Your task to perform on an android device: turn off javascript in the chrome app Image 0: 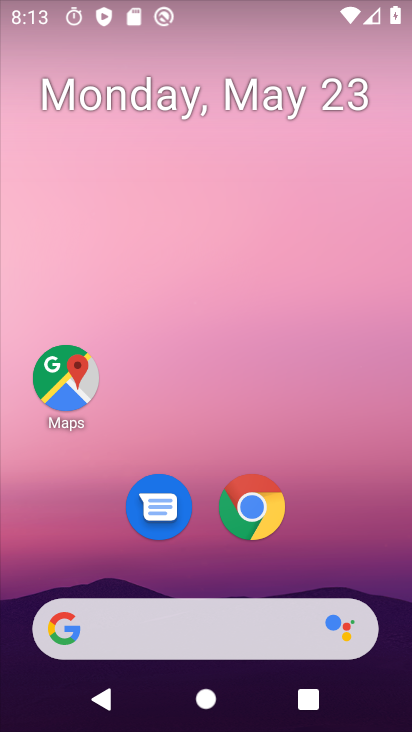
Step 0: drag from (313, 507) to (285, 5)
Your task to perform on an android device: turn off javascript in the chrome app Image 1: 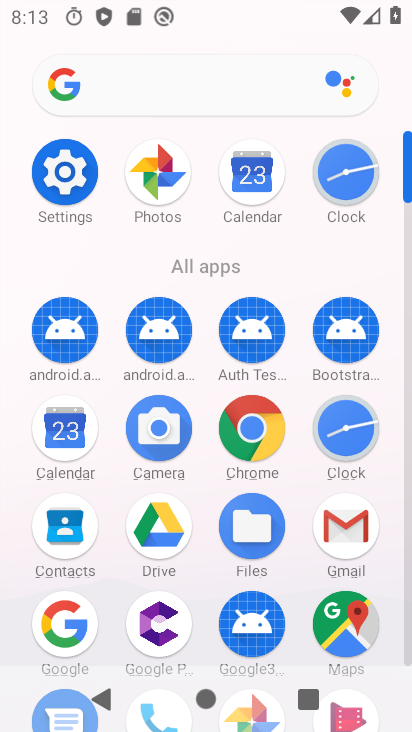
Step 1: click (252, 446)
Your task to perform on an android device: turn off javascript in the chrome app Image 2: 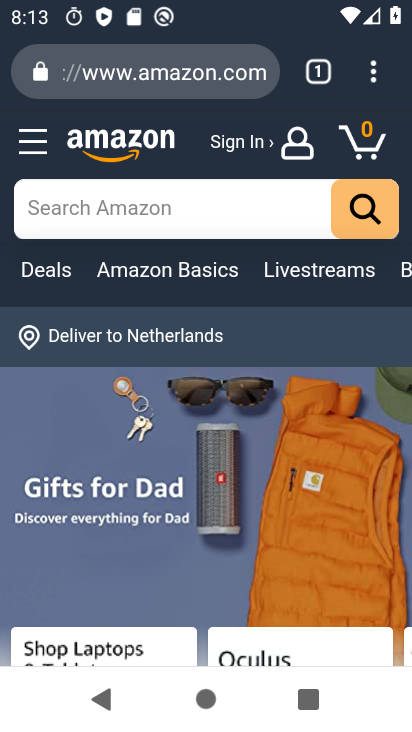
Step 2: drag from (372, 86) to (142, 500)
Your task to perform on an android device: turn off javascript in the chrome app Image 3: 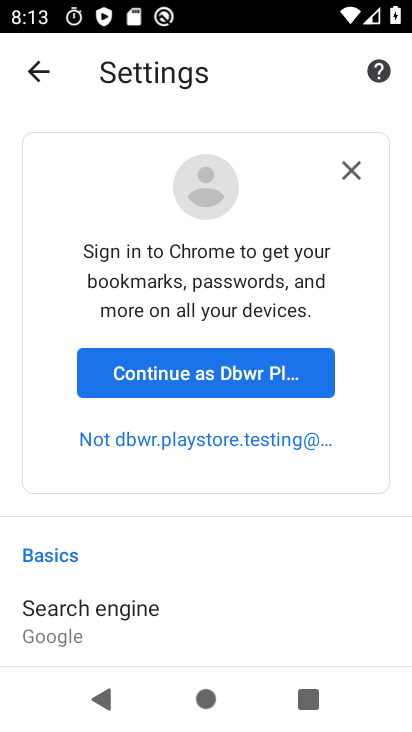
Step 3: drag from (172, 629) to (163, 261)
Your task to perform on an android device: turn off javascript in the chrome app Image 4: 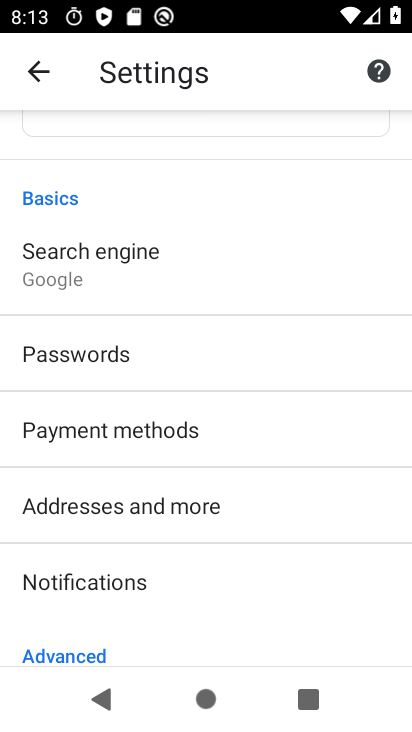
Step 4: drag from (199, 568) to (209, 189)
Your task to perform on an android device: turn off javascript in the chrome app Image 5: 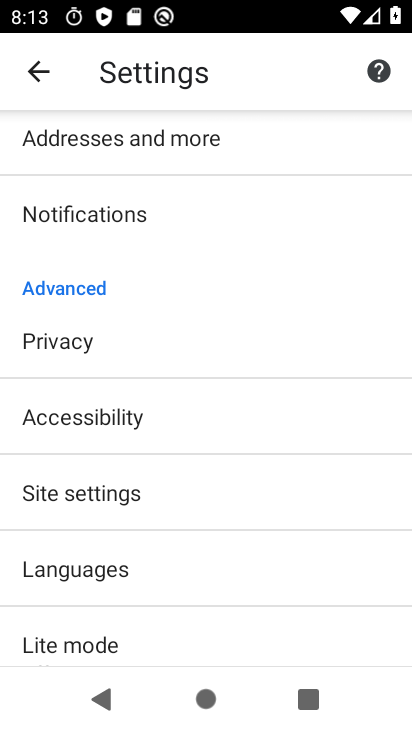
Step 5: click (117, 493)
Your task to perform on an android device: turn off javascript in the chrome app Image 6: 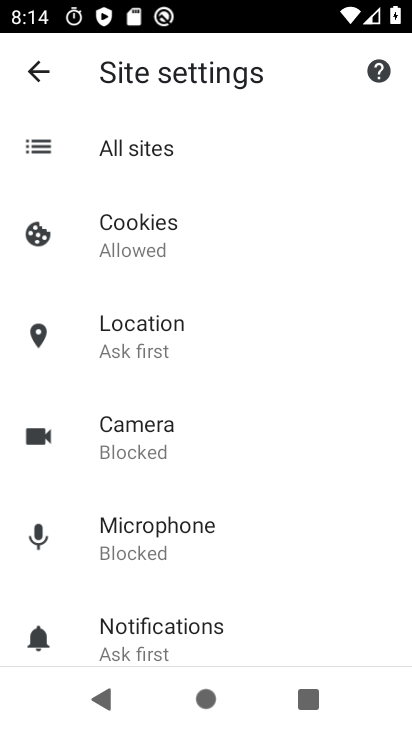
Step 6: drag from (109, 559) to (116, 171)
Your task to perform on an android device: turn off javascript in the chrome app Image 7: 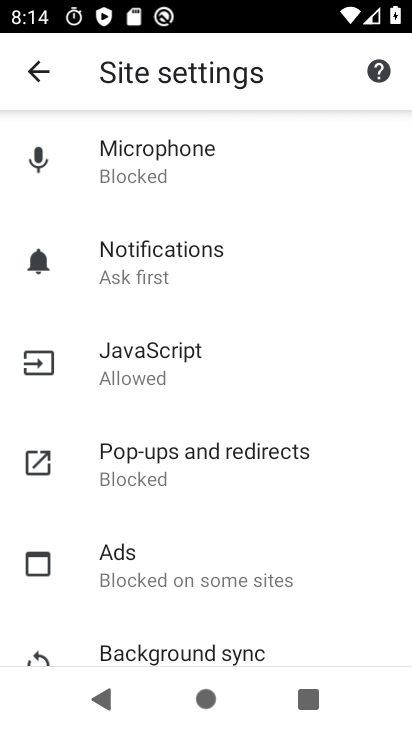
Step 7: click (128, 375)
Your task to perform on an android device: turn off javascript in the chrome app Image 8: 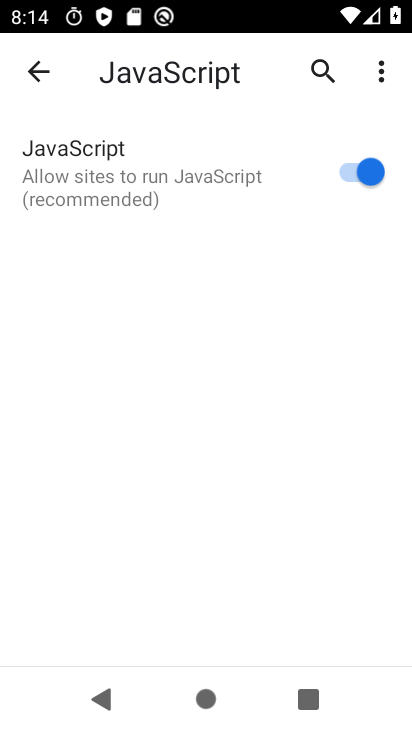
Step 8: click (346, 181)
Your task to perform on an android device: turn off javascript in the chrome app Image 9: 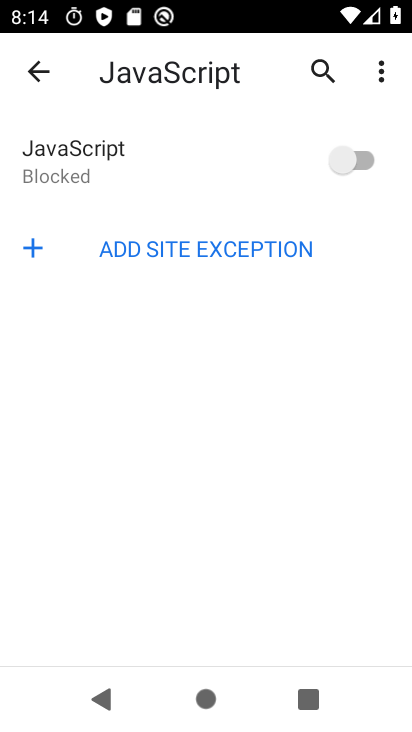
Step 9: task complete